Your task to perform on an android device: turn on airplane mode Image 0: 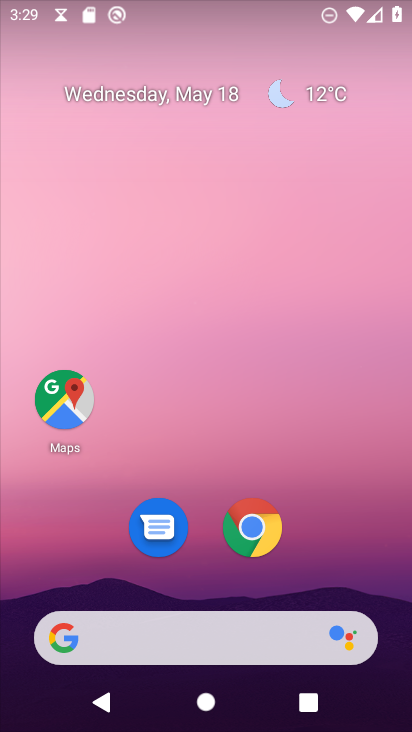
Step 0: drag from (335, 545) to (240, 37)
Your task to perform on an android device: turn on airplane mode Image 1: 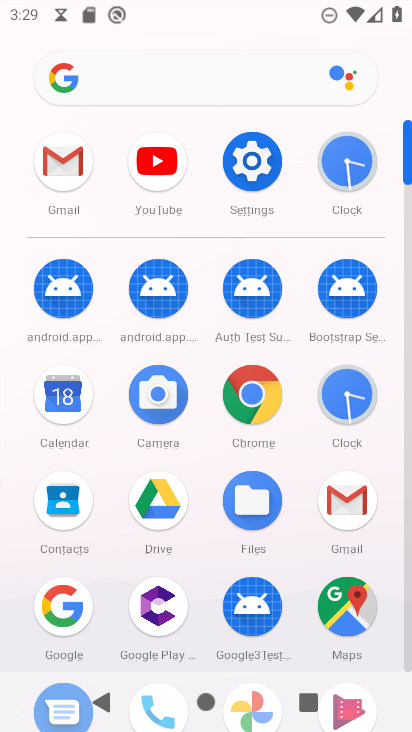
Step 1: click (242, 166)
Your task to perform on an android device: turn on airplane mode Image 2: 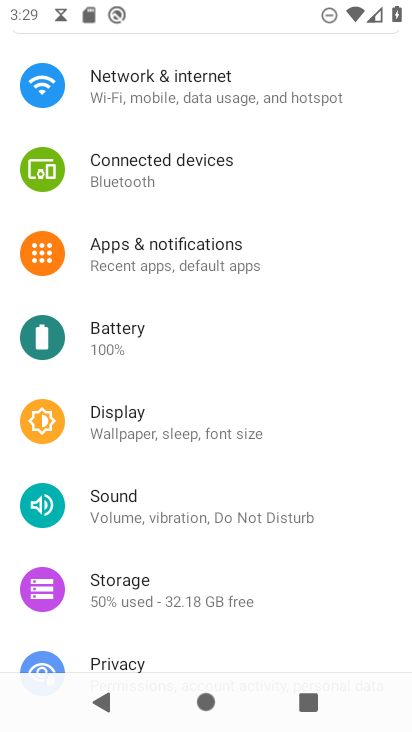
Step 2: click (230, 88)
Your task to perform on an android device: turn on airplane mode Image 3: 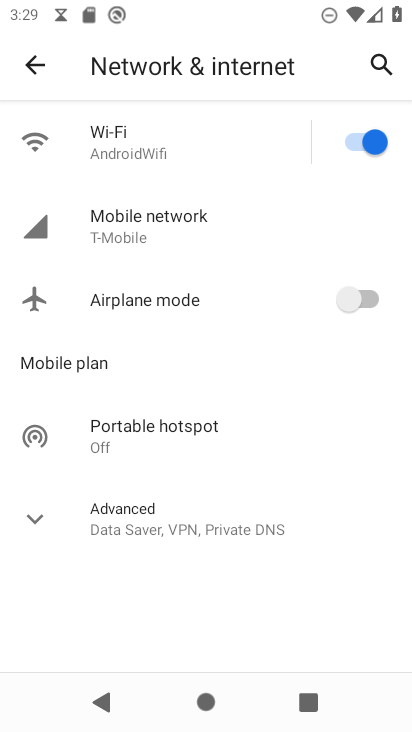
Step 3: click (366, 287)
Your task to perform on an android device: turn on airplane mode Image 4: 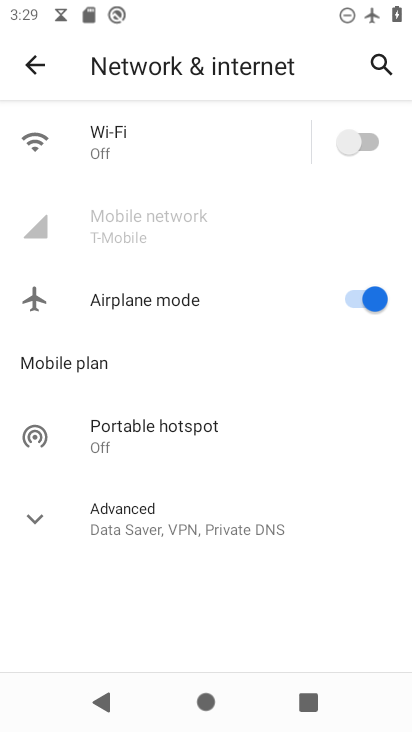
Step 4: task complete